Your task to perform on an android device: turn on javascript in the chrome app Image 0: 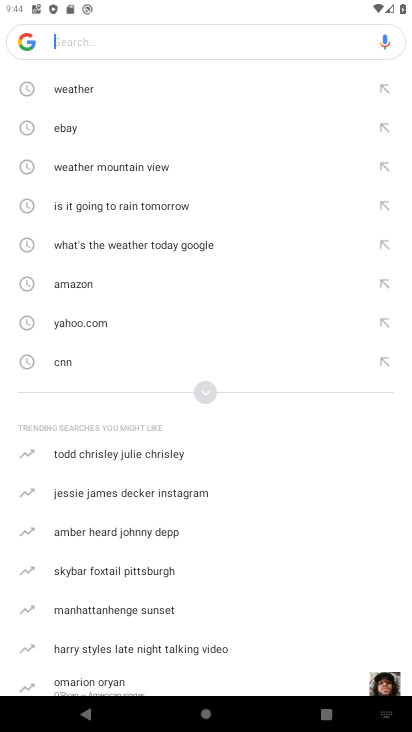
Step 0: press home button
Your task to perform on an android device: turn on javascript in the chrome app Image 1: 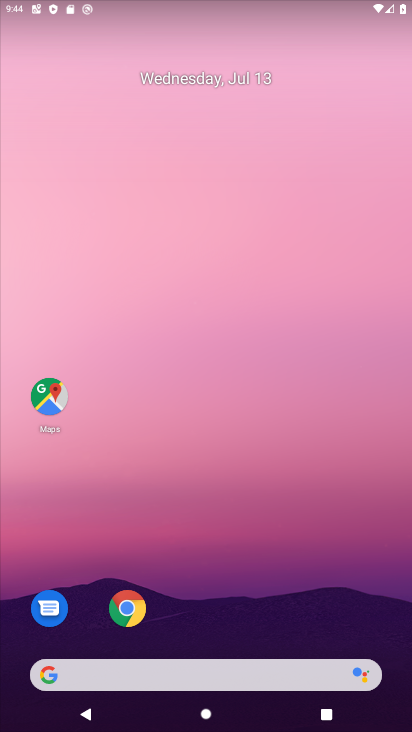
Step 1: click (128, 610)
Your task to perform on an android device: turn on javascript in the chrome app Image 2: 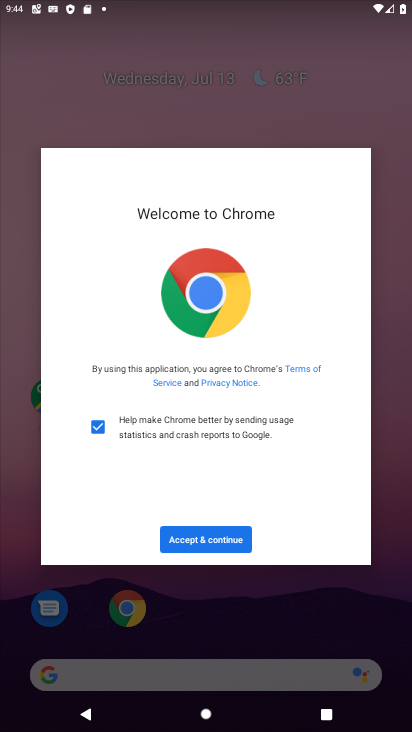
Step 2: click (208, 535)
Your task to perform on an android device: turn on javascript in the chrome app Image 3: 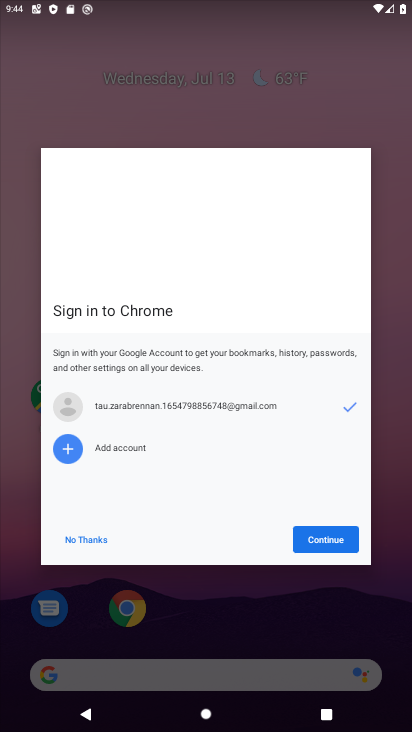
Step 3: click (351, 545)
Your task to perform on an android device: turn on javascript in the chrome app Image 4: 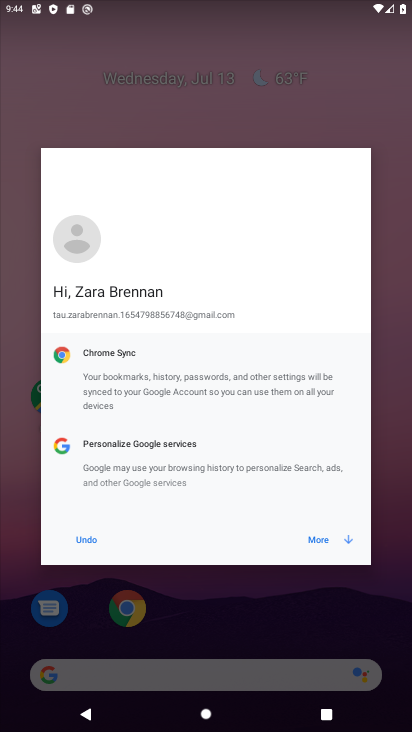
Step 4: click (321, 541)
Your task to perform on an android device: turn on javascript in the chrome app Image 5: 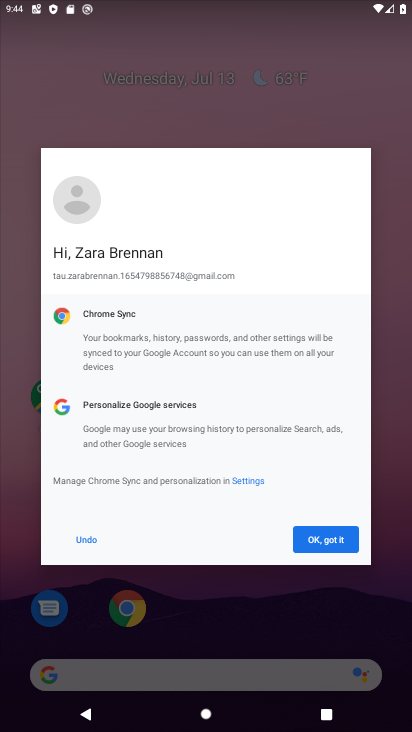
Step 5: click (321, 541)
Your task to perform on an android device: turn on javascript in the chrome app Image 6: 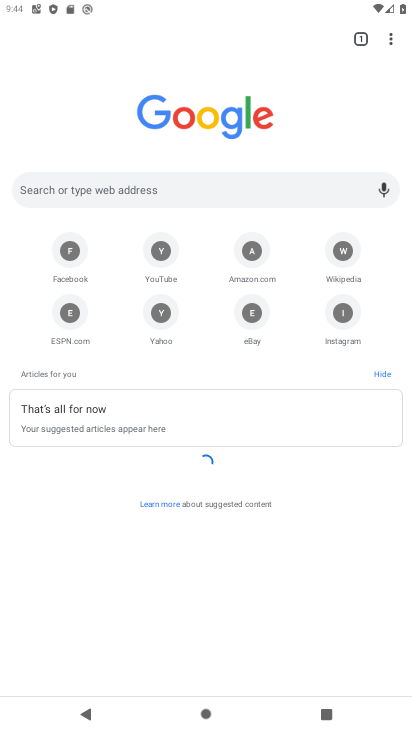
Step 6: click (390, 37)
Your task to perform on an android device: turn on javascript in the chrome app Image 7: 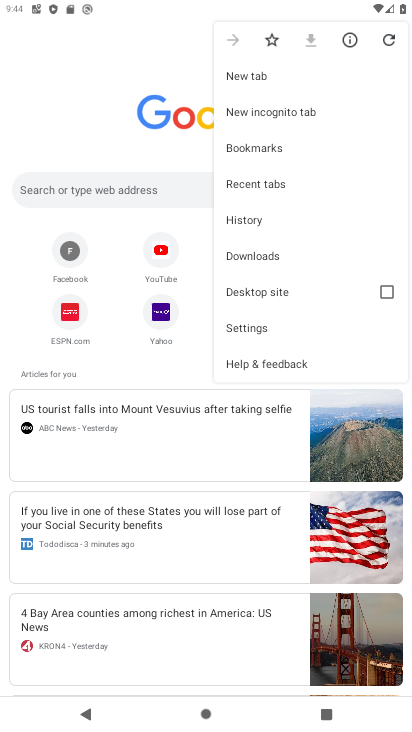
Step 7: click (262, 322)
Your task to perform on an android device: turn on javascript in the chrome app Image 8: 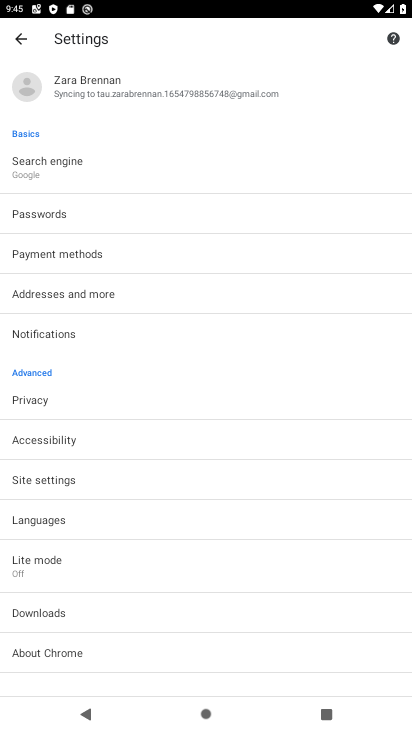
Step 8: click (66, 485)
Your task to perform on an android device: turn on javascript in the chrome app Image 9: 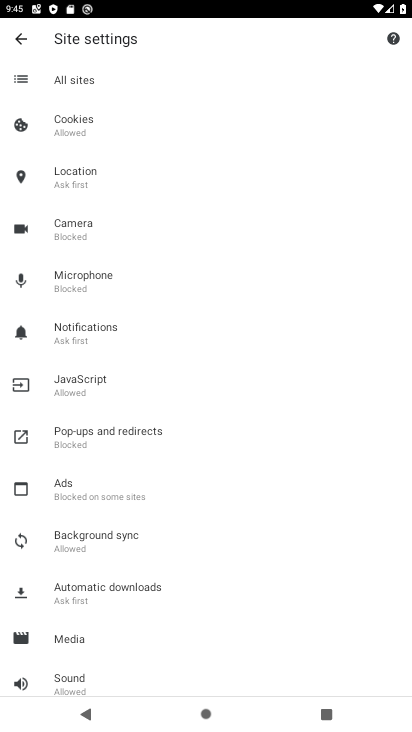
Step 9: click (101, 388)
Your task to perform on an android device: turn on javascript in the chrome app Image 10: 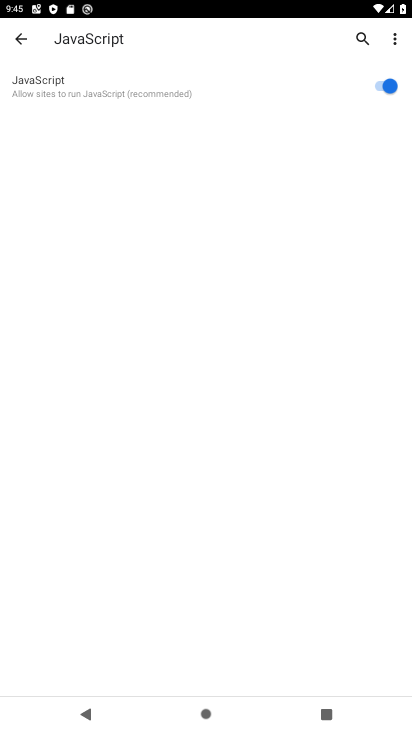
Step 10: task complete